Your task to perform on an android device: open a bookmark in the chrome app Image 0: 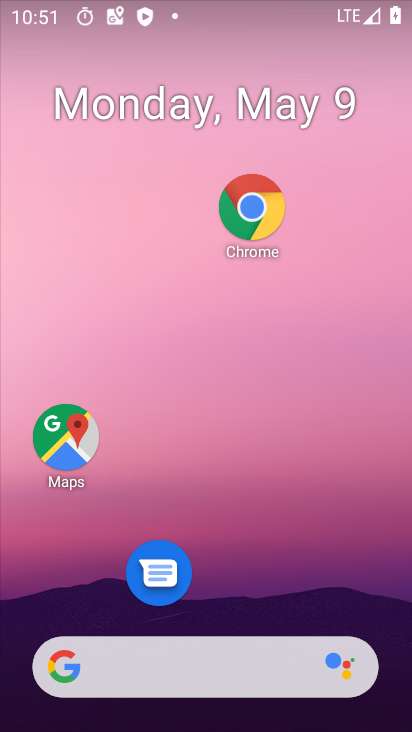
Step 0: drag from (242, 644) to (239, 399)
Your task to perform on an android device: open a bookmark in the chrome app Image 1: 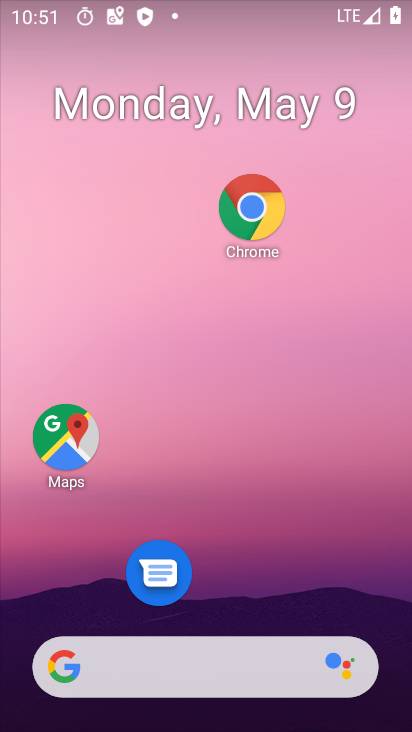
Step 1: click (259, 197)
Your task to perform on an android device: open a bookmark in the chrome app Image 2: 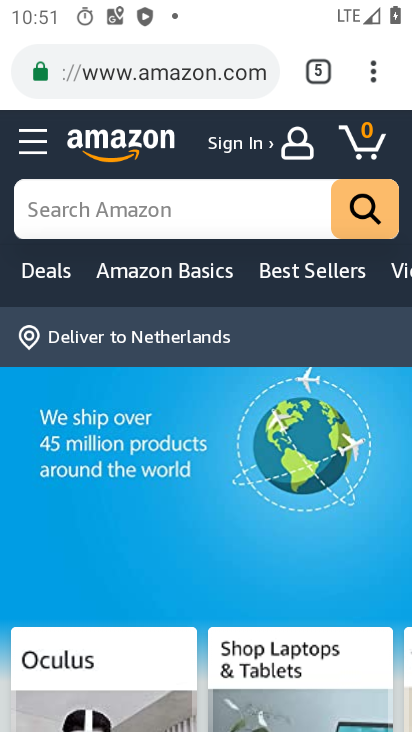
Step 2: click (381, 79)
Your task to perform on an android device: open a bookmark in the chrome app Image 3: 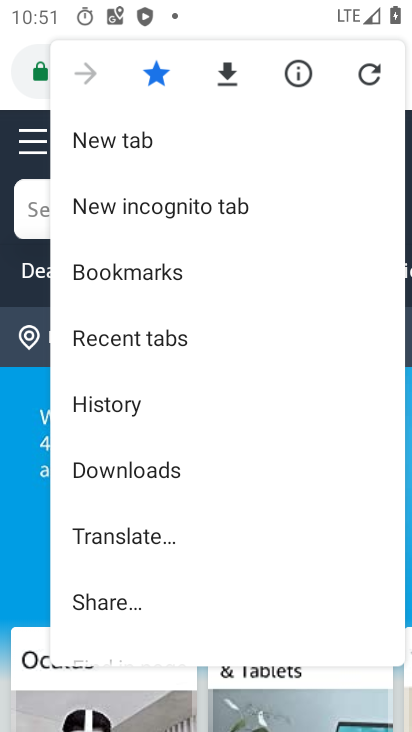
Step 3: click (204, 287)
Your task to perform on an android device: open a bookmark in the chrome app Image 4: 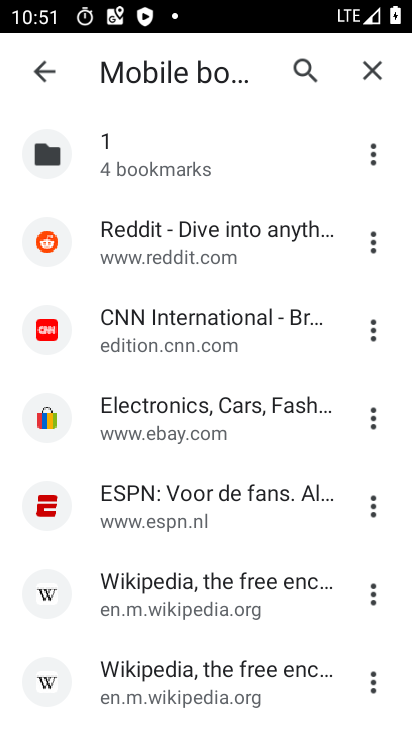
Step 4: drag from (251, 519) to (252, 359)
Your task to perform on an android device: open a bookmark in the chrome app Image 5: 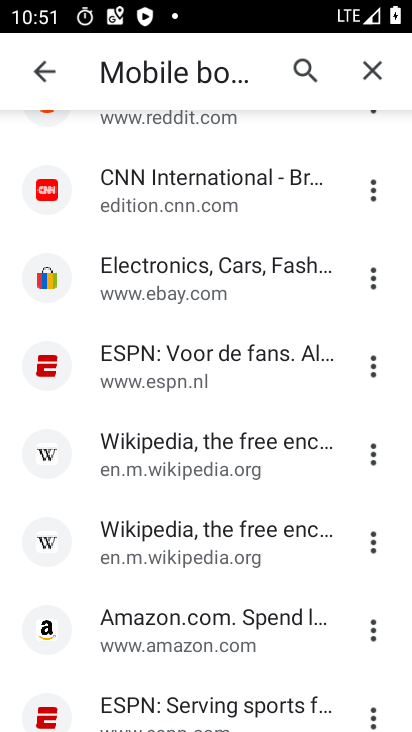
Step 5: drag from (257, 588) to (287, 401)
Your task to perform on an android device: open a bookmark in the chrome app Image 6: 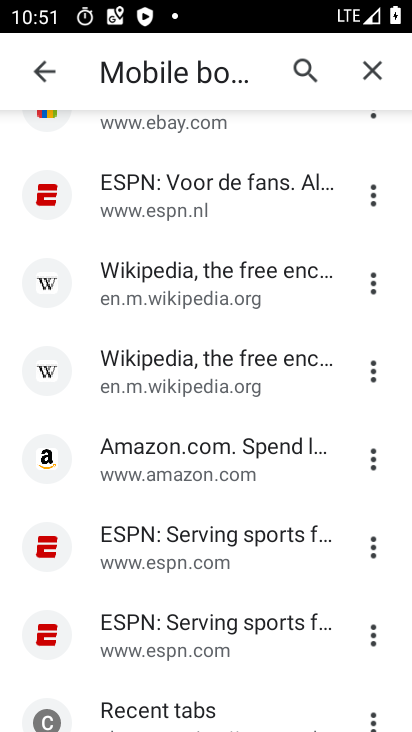
Step 6: drag from (260, 576) to (267, 337)
Your task to perform on an android device: open a bookmark in the chrome app Image 7: 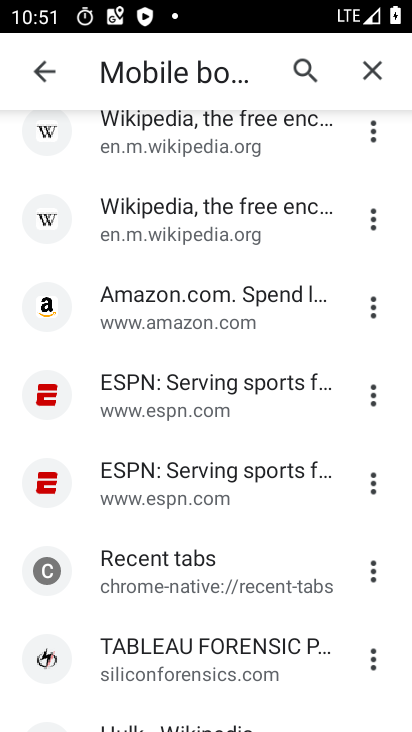
Step 7: click (219, 465)
Your task to perform on an android device: open a bookmark in the chrome app Image 8: 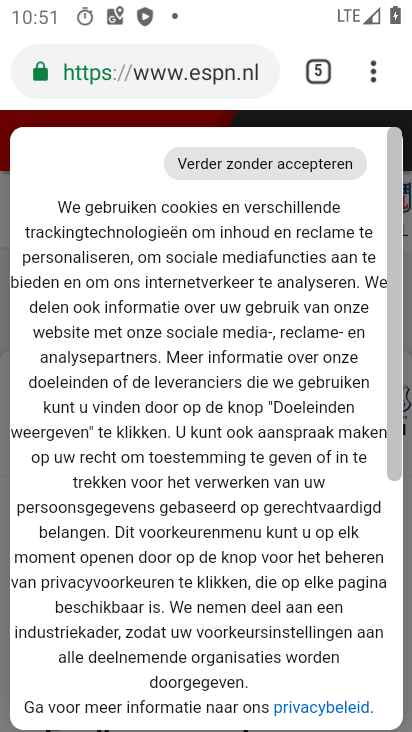
Step 8: task complete